Your task to perform on an android device: turn on the 12-hour format for clock Image 0: 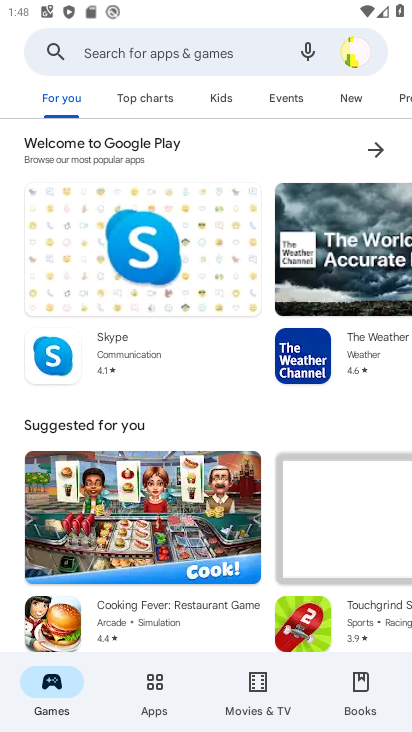
Step 0: press home button
Your task to perform on an android device: turn on the 12-hour format for clock Image 1: 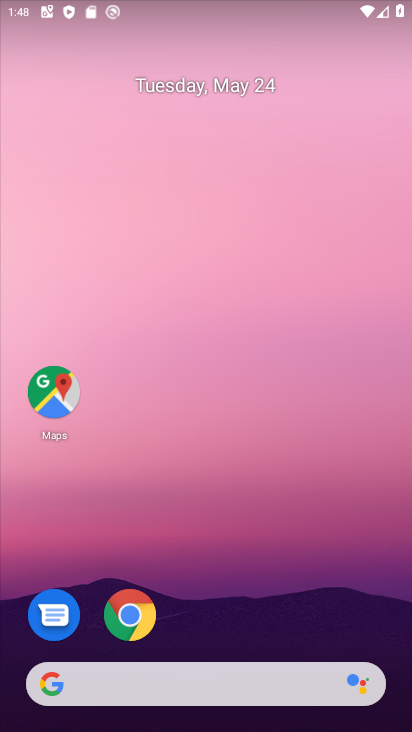
Step 1: drag from (212, 638) to (225, 54)
Your task to perform on an android device: turn on the 12-hour format for clock Image 2: 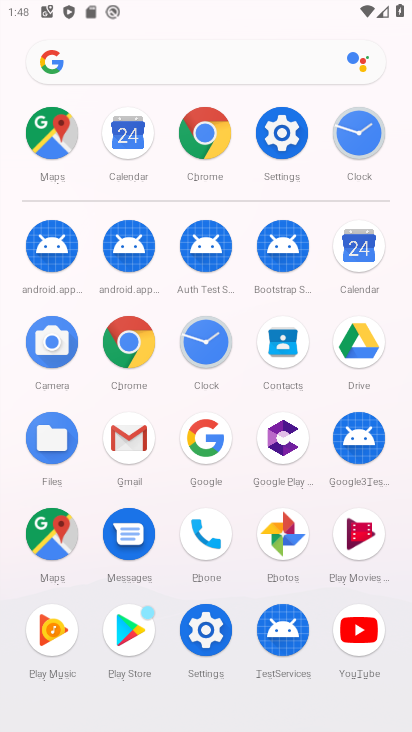
Step 2: click (202, 335)
Your task to perform on an android device: turn on the 12-hour format for clock Image 3: 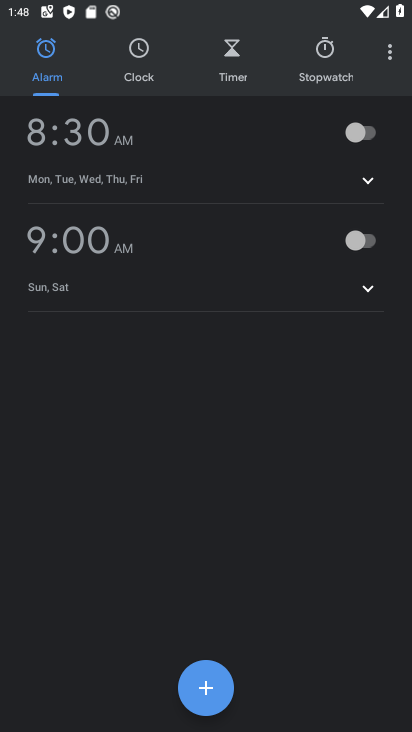
Step 3: click (389, 49)
Your task to perform on an android device: turn on the 12-hour format for clock Image 4: 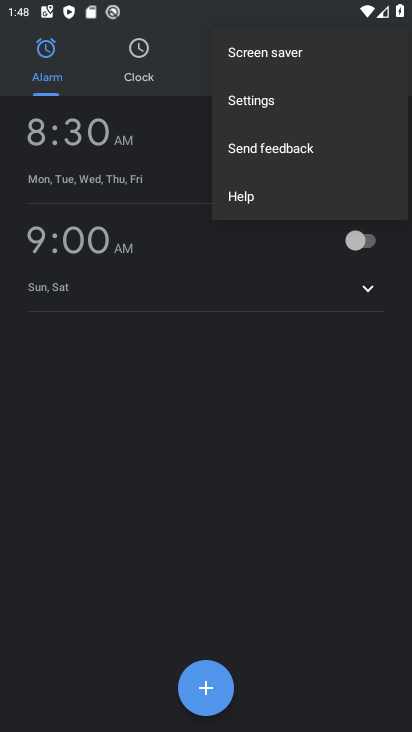
Step 4: click (273, 96)
Your task to perform on an android device: turn on the 12-hour format for clock Image 5: 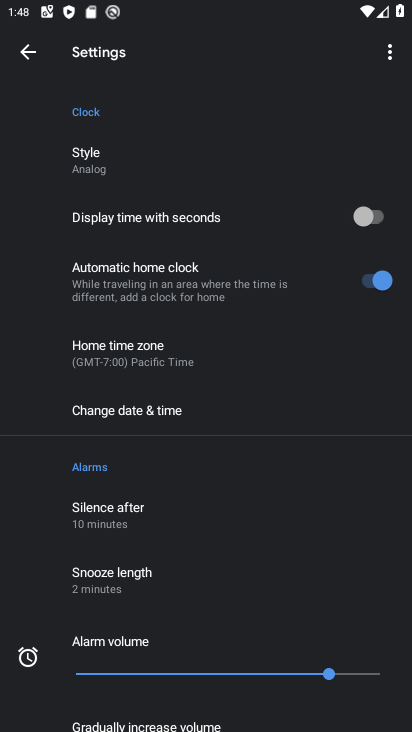
Step 5: click (191, 410)
Your task to perform on an android device: turn on the 12-hour format for clock Image 6: 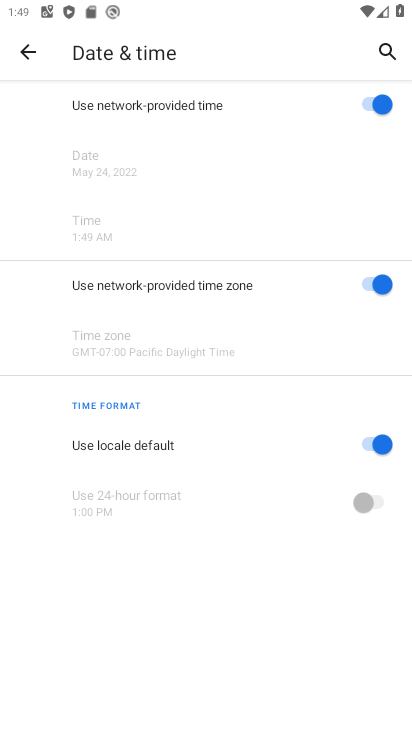
Step 6: task complete